Your task to perform on an android device: open a bookmark in the chrome app Image 0: 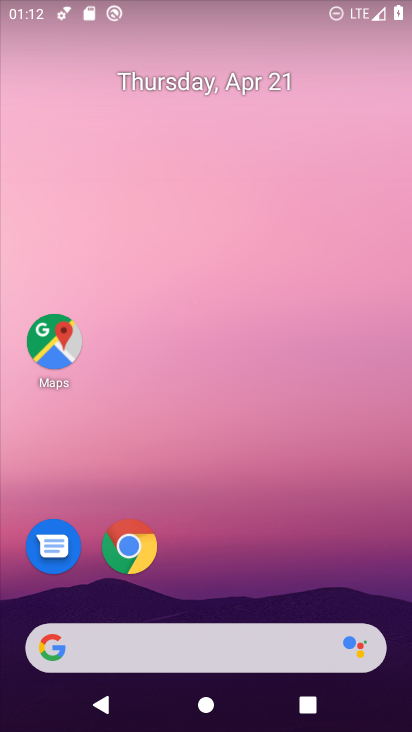
Step 0: click (125, 544)
Your task to perform on an android device: open a bookmark in the chrome app Image 1: 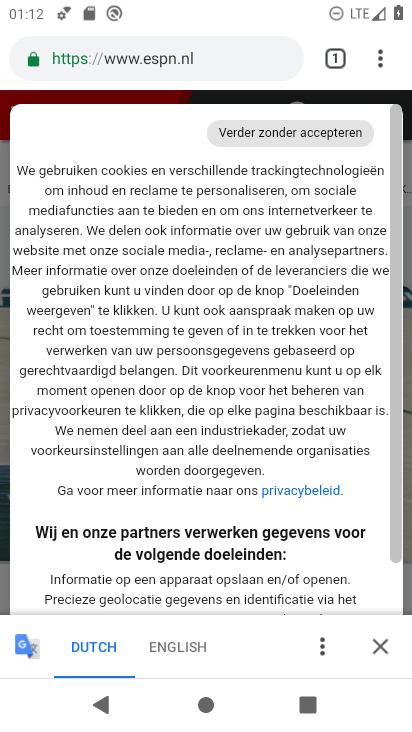
Step 1: task complete